Your task to perform on an android device: all mails in gmail Image 0: 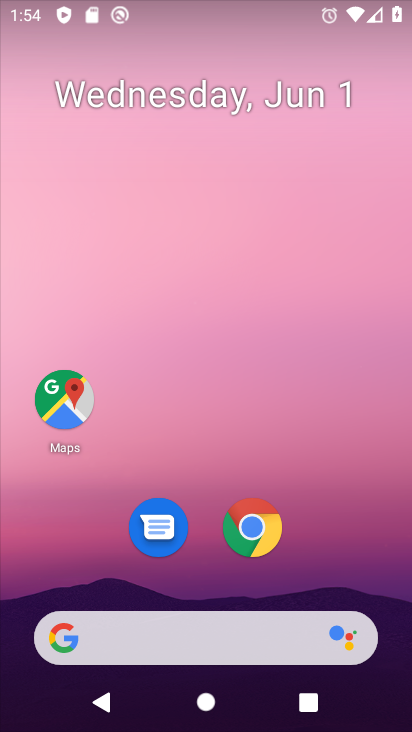
Step 0: drag from (406, 637) to (253, 182)
Your task to perform on an android device: all mails in gmail Image 1: 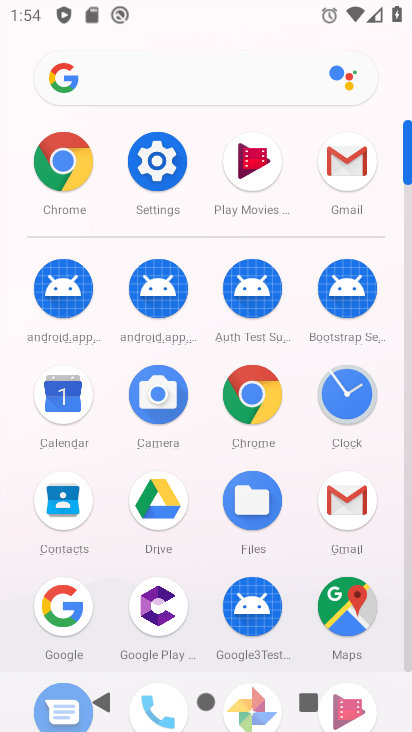
Step 1: click (344, 149)
Your task to perform on an android device: all mails in gmail Image 2: 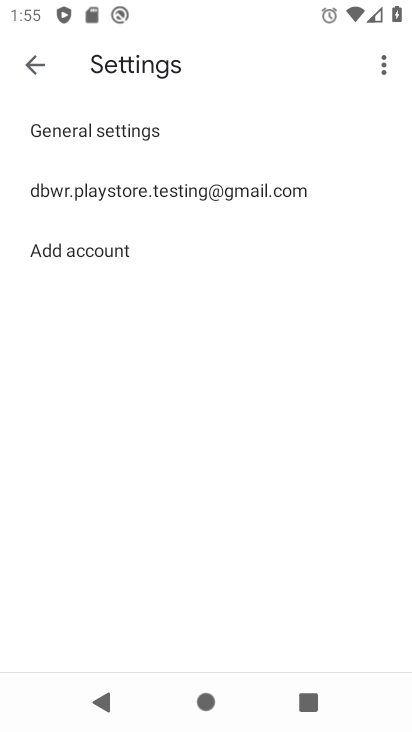
Step 2: click (38, 71)
Your task to perform on an android device: all mails in gmail Image 3: 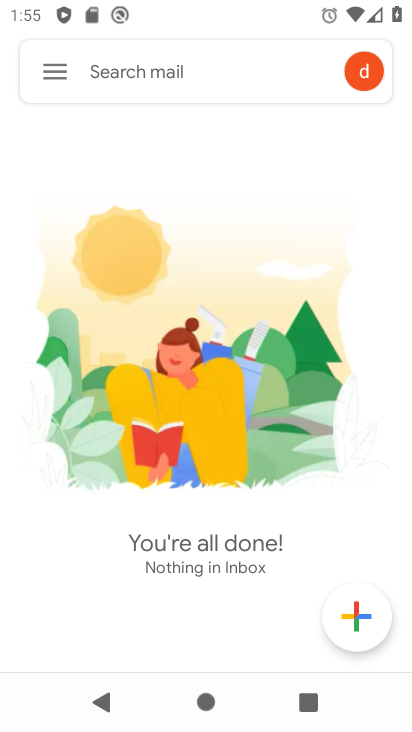
Step 3: click (38, 71)
Your task to perform on an android device: all mails in gmail Image 4: 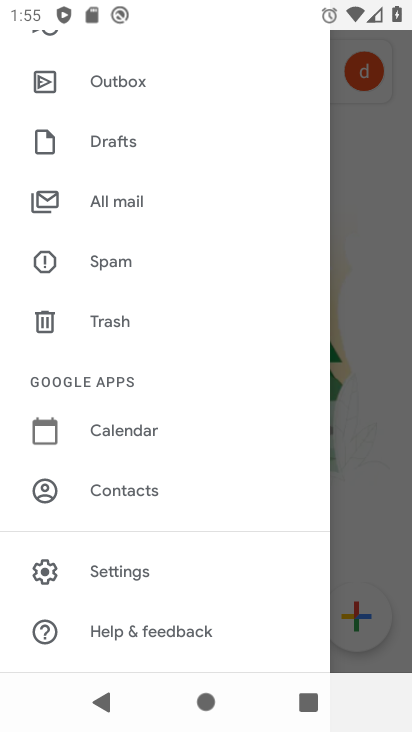
Step 4: click (118, 211)
Your task to perform on an android device: all mails in gmail Image 5: 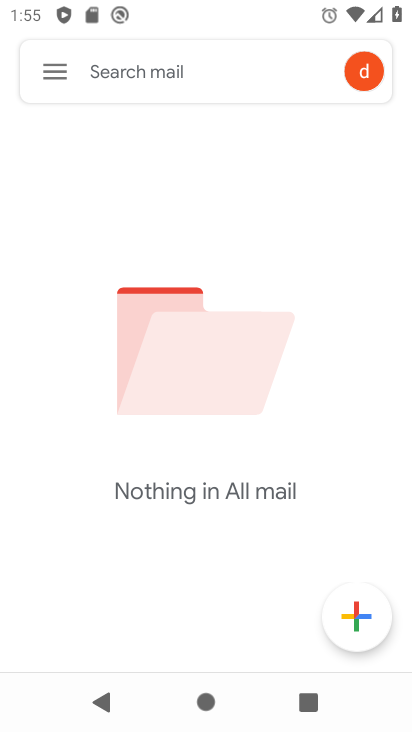
Step 5: task complete